Your task to perform on an android device: install app "Google Play services" Image 0: 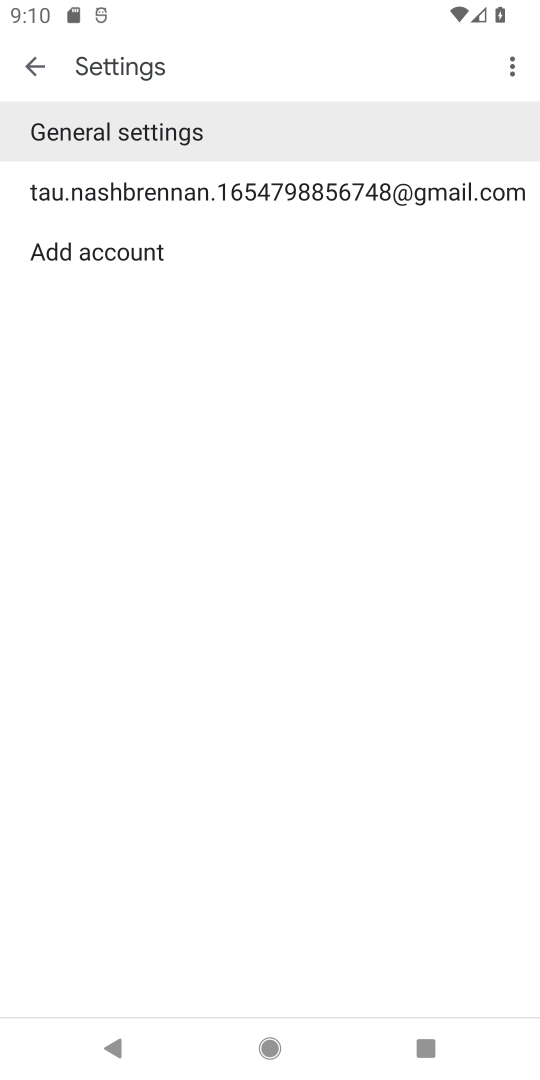
Step 0: press home button
Your task to perform on an android device: install app "Google Play services" Image 1: 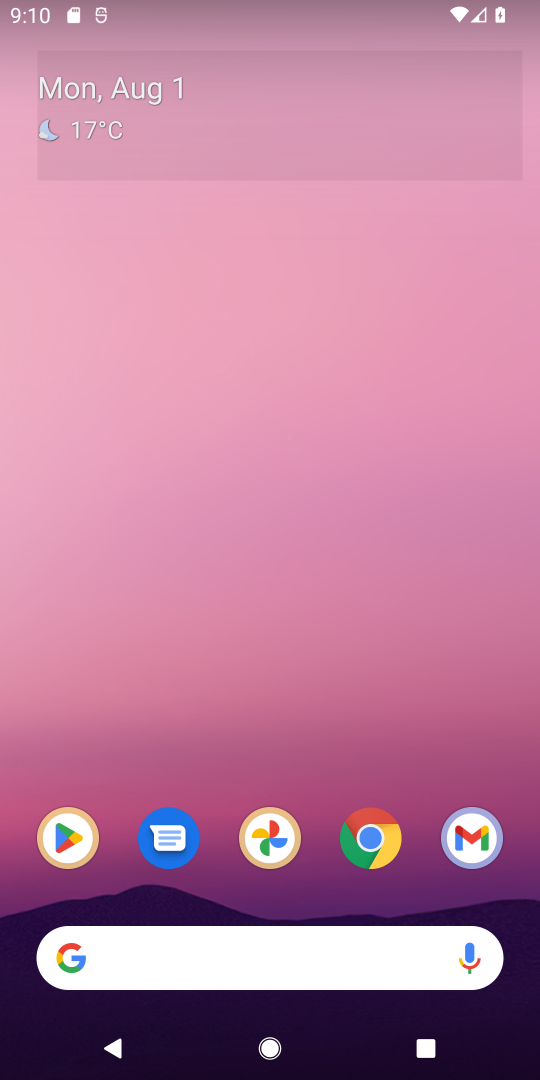
Step 1: click (42, 835)
Your task to perform on an android device: install app "Google Play services" Image 2: 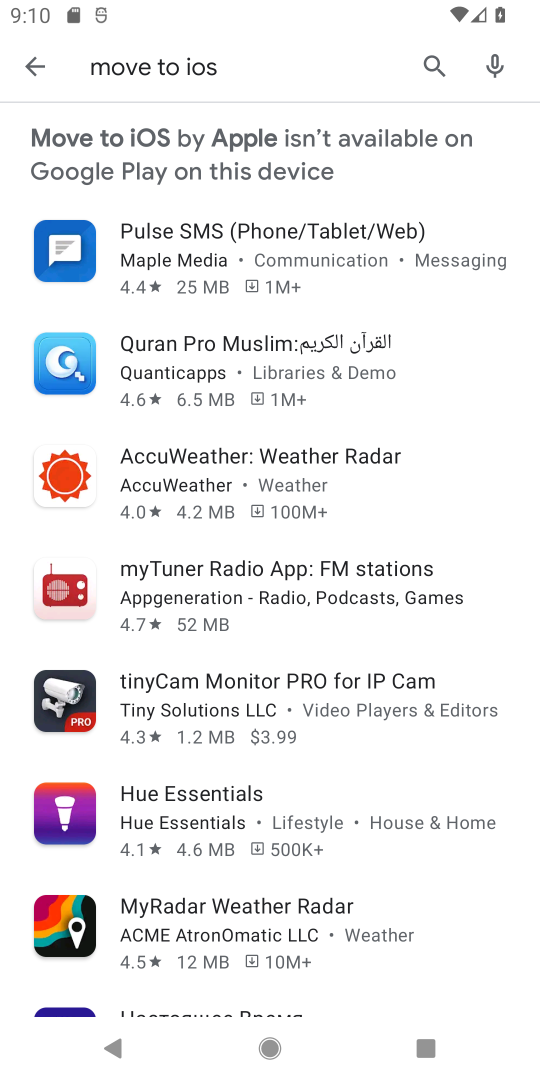
Step 2: click (435, 53)
Your task to perform on an android device: install app "Google Play services" Image 3: 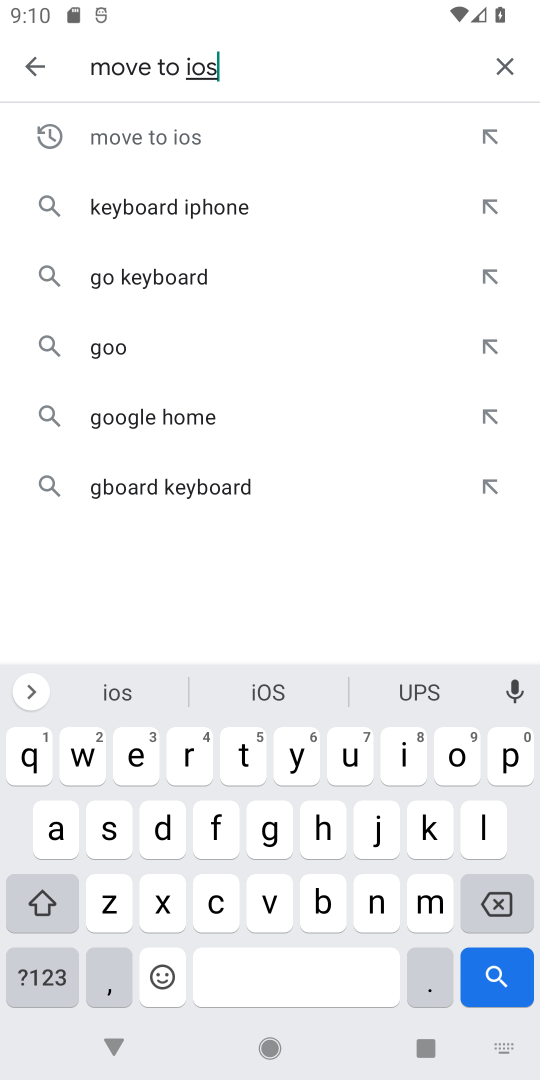
Step 3: click (505, 62)
Your task to perform on an android device: install app "Google Play services" Image 4: 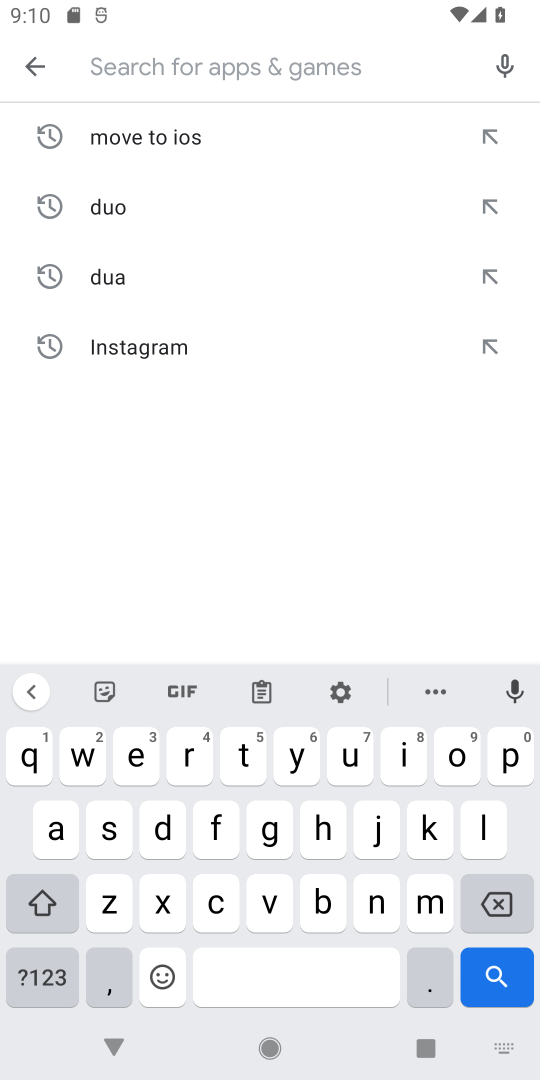
Step 4: type "google play services"
Your task to perform on an android device: install app "Google Play services" Image 5: 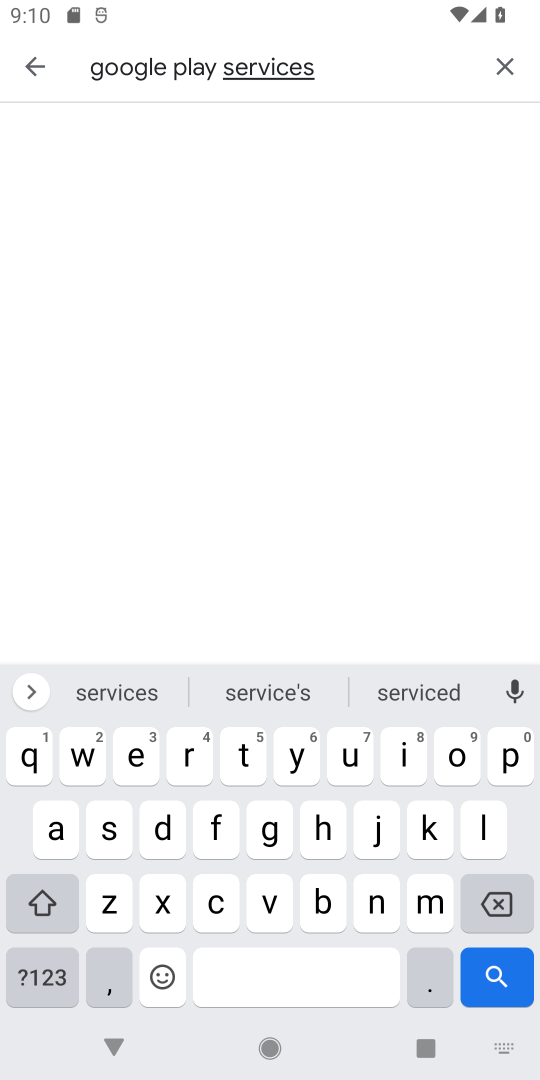
Step 5: click (500, 969)
Your task to perform on an android device: install app "Google Play services" Image 6: 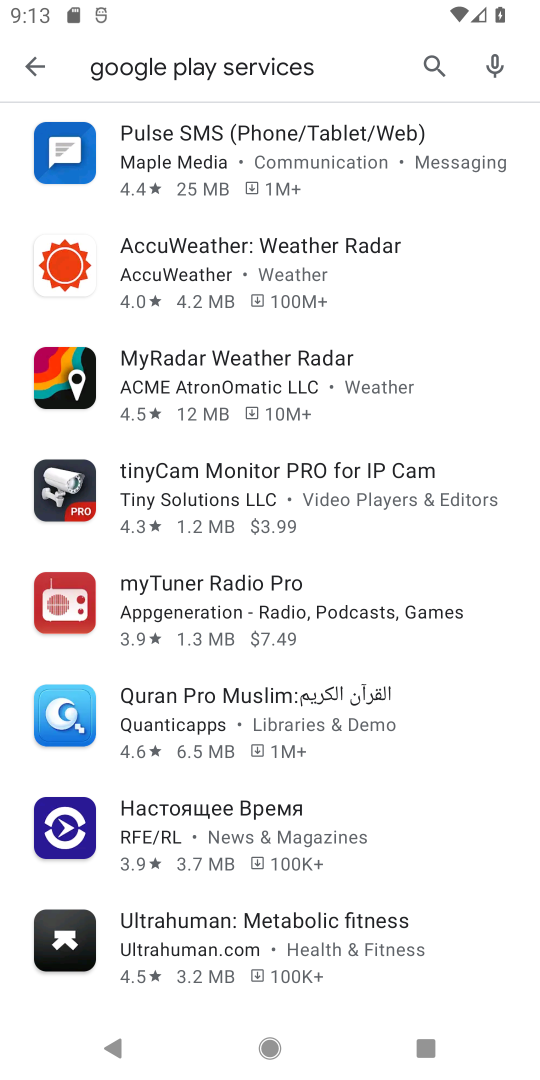
Step 6: task complete